Your task to perform on an android device: Go to Yahoo.com Image 0: 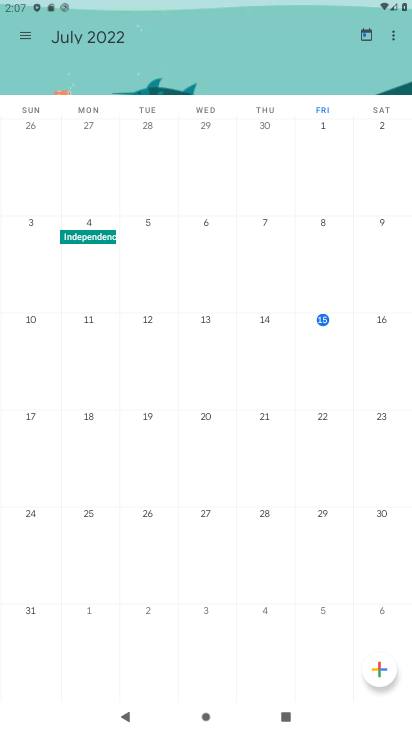
Step 0: press home button
Your task to perform on an android device: Go to Yahoo.com Image 1: 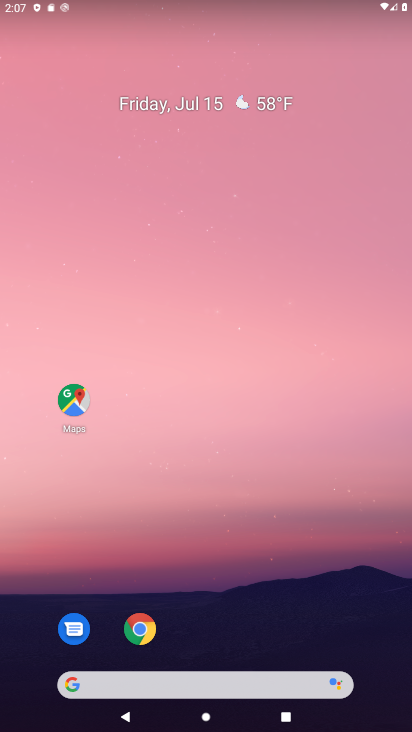
Step 1: click (146, 621)
Your task to perform on an android device: Go to Yahoo.com Image 2: 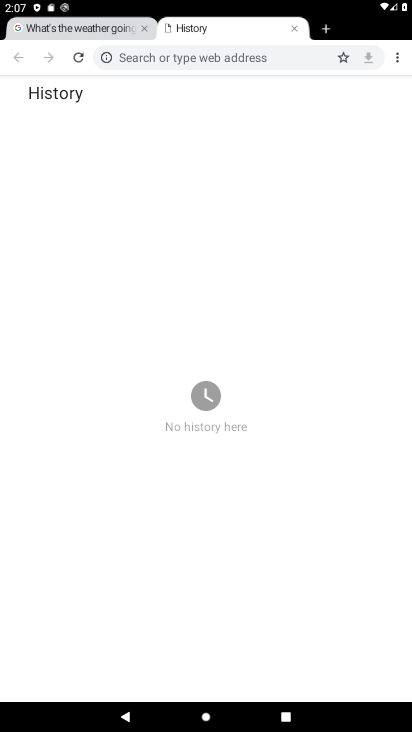
Step 2: click (205, 56)
Your task to perform on an android device: Go to Yahoo.com Image 3: 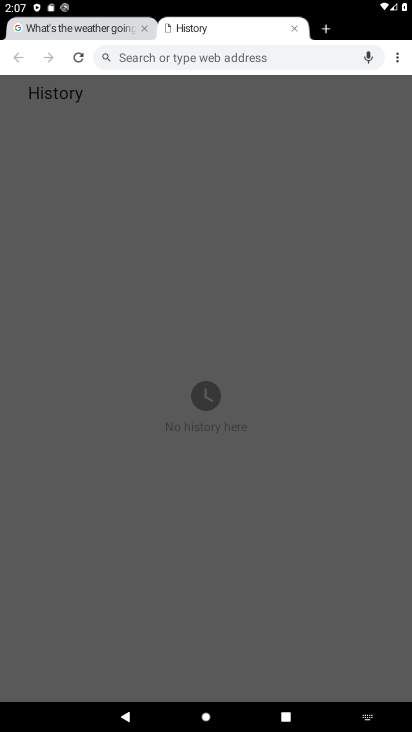
Step 3: type "yahoo.com"
Your task to perform on an android device: Go to Yahoo.com Image 4: 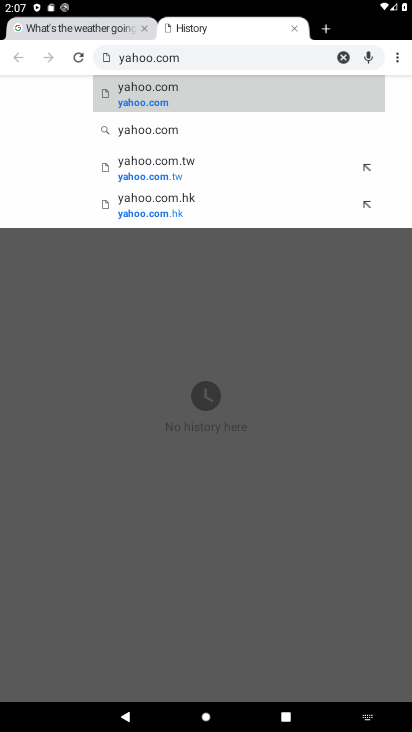
Step 4: click (143, 104)
Your task to perform on an android device: Go to Yahoo.com Image 5: 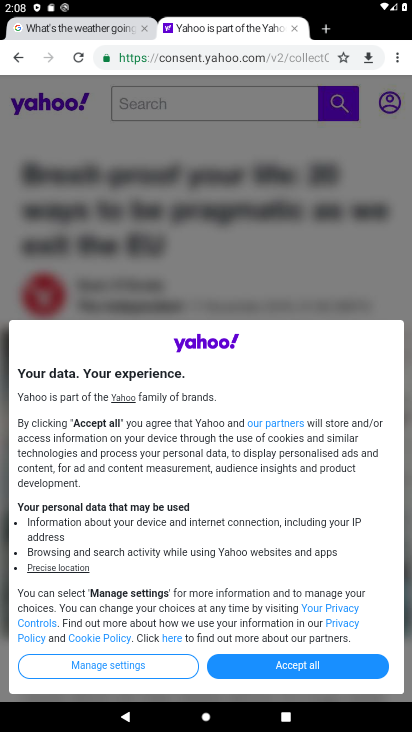
Step 5: task complete